Your task to perform on an android device: Go to Wikipedia Image 0: 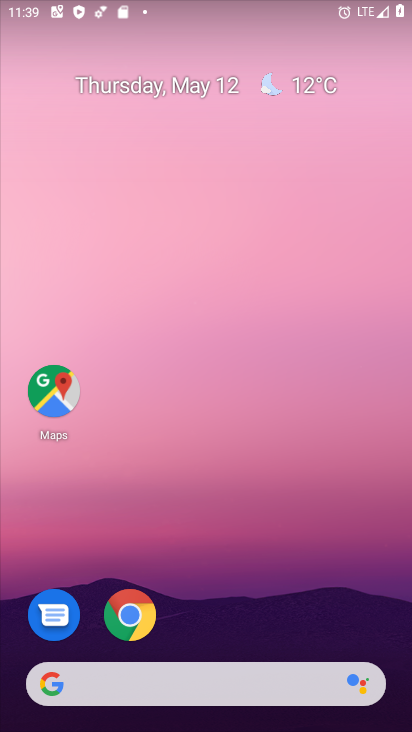
Step 0: click (137, 612)
Your task to perform on an android device: Go to Wikipedia Image 1: 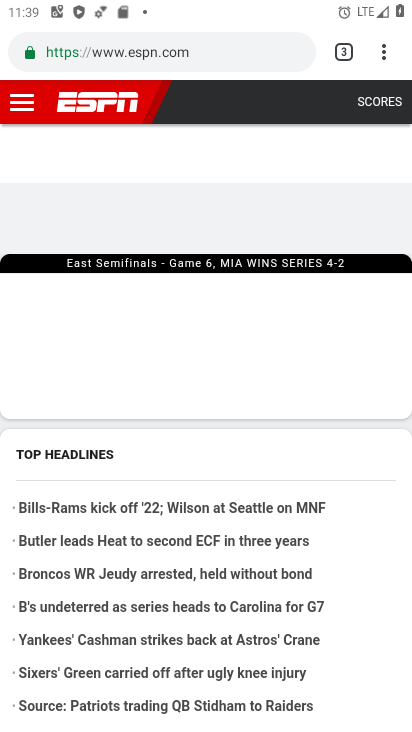
Step 1: click (379, 55)
Your task to perform on an android device: Go to Wikipedia Image 2: 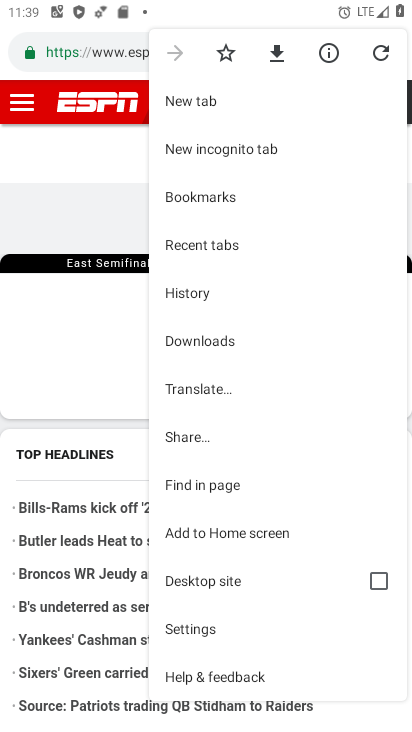
Step 2: click (313, 105)
Your task to perform on an android device: Go to Wikipedia Image 3: 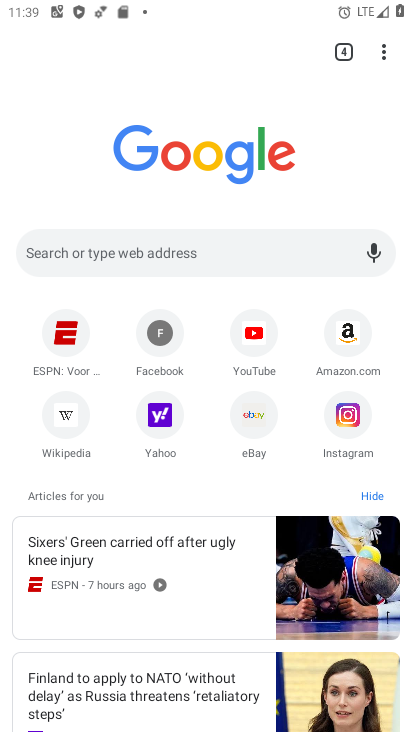
Step 3: click (59, 413)
Your task to perform on an android device: Go to Wikipedia Image 4: 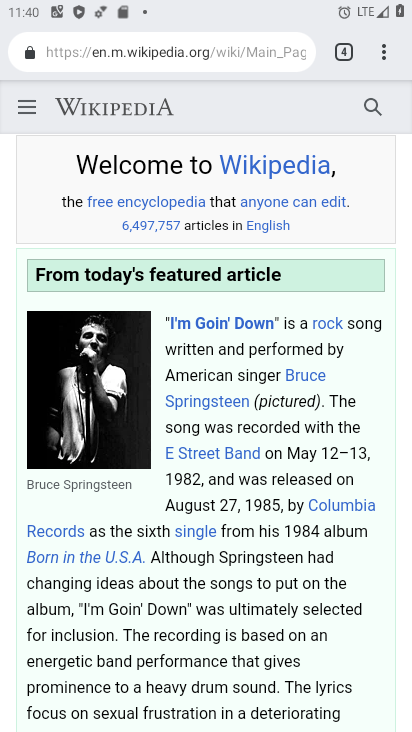
Step 4: task complete